Your task to perform on an android device: refresh tabs in the chrome app Image 0: 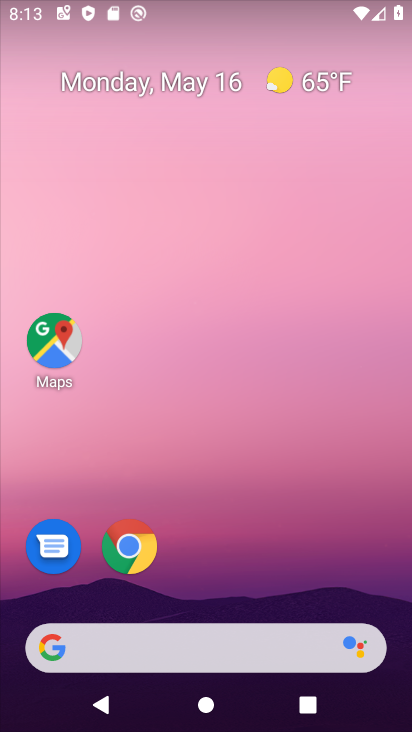
Step 0: click (135, 579)
Your task to perform on an android device: refresh tabs in the chrome app Image 1: 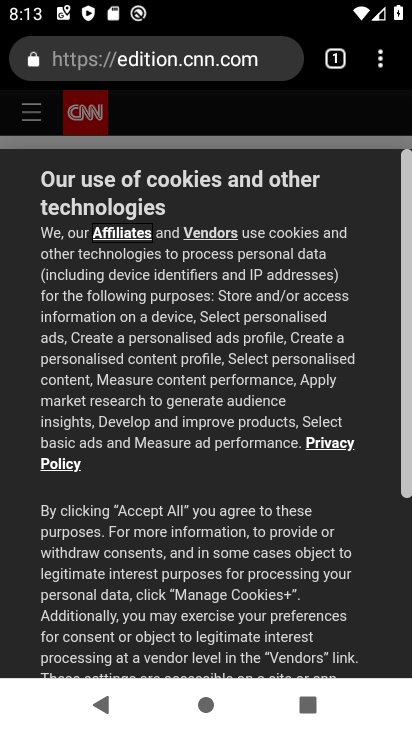
Step 1: click (383, 60)
Your task to perform on an android device: refresh tabs in the chrome app Image 2: 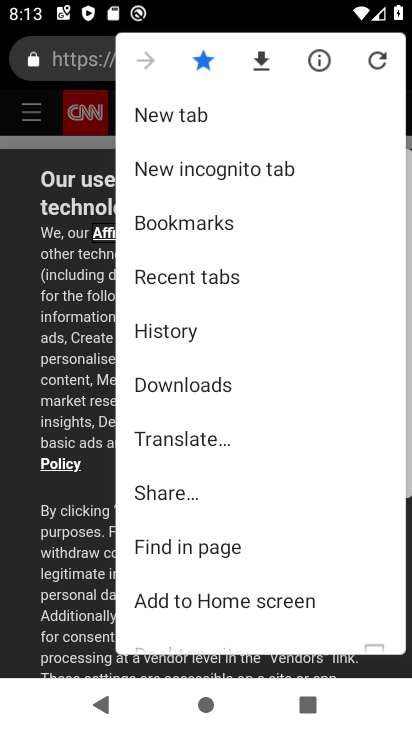
Step 2: click (373, 55)
Your task to perform on an android device: refresh tabs in the chrome app Image 3: 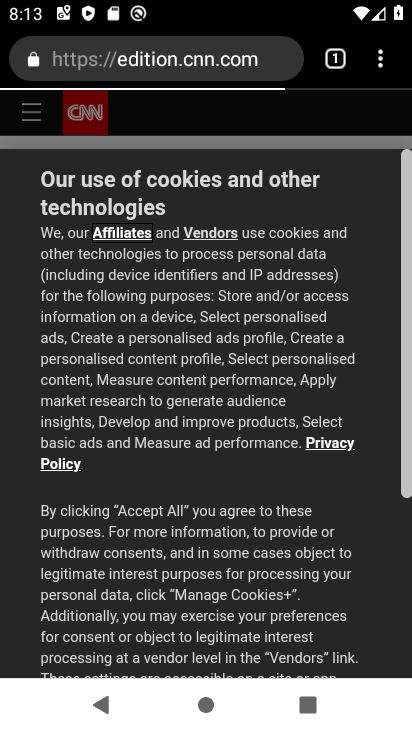
Step 3: task complete